Your task to perform on an android device: Go to settings Image 0: 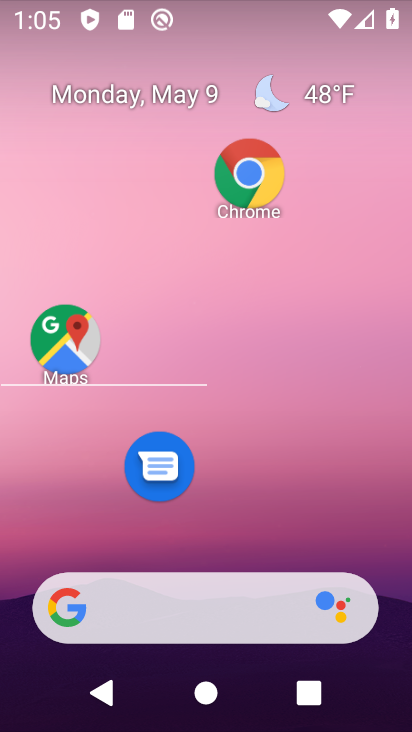
Step 0: click (63, 321)
Your task to perform on an android device: Go to settings Image 1: 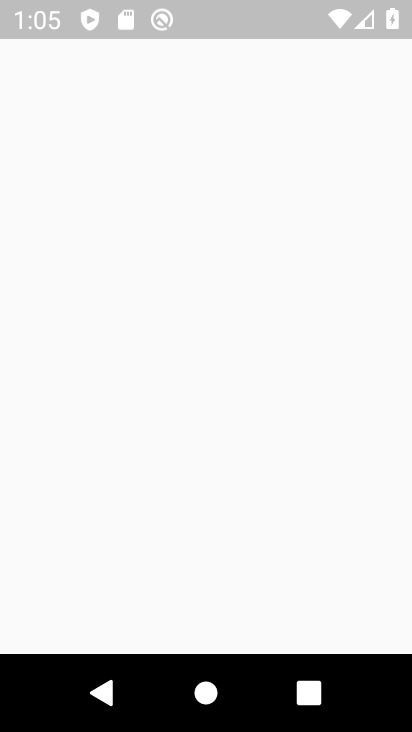
Step 1: press home button
Your task to perform on an android device: Go to settings Image 2: 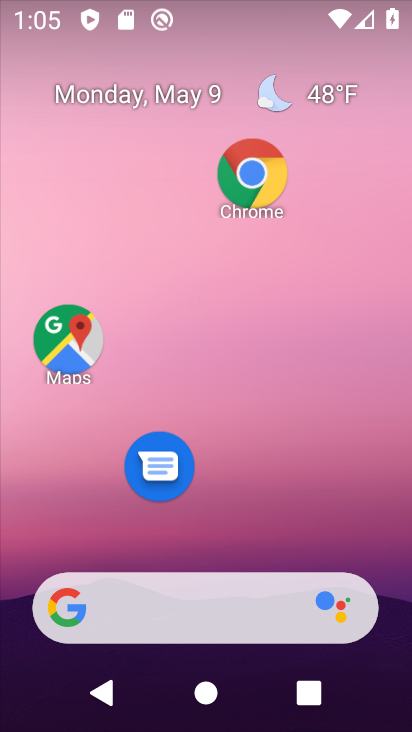
Step 2: drag from (231, 505) to (241, 119)
Your task to perform on an android device: Go to settings Image 3: 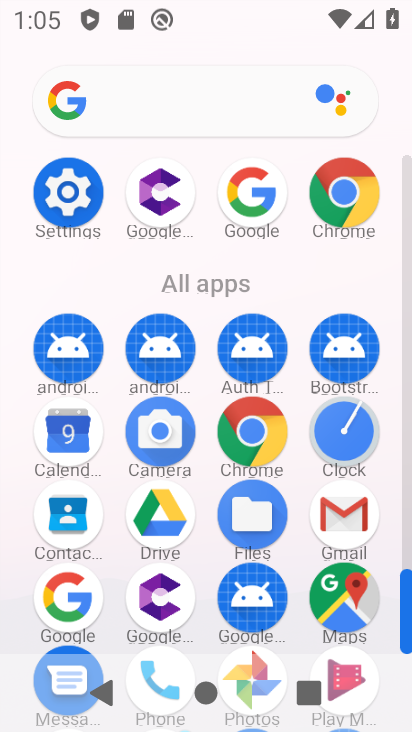
Step 3: click (80, 205)
Your task to perform on an android device: Go to settings Image 4: 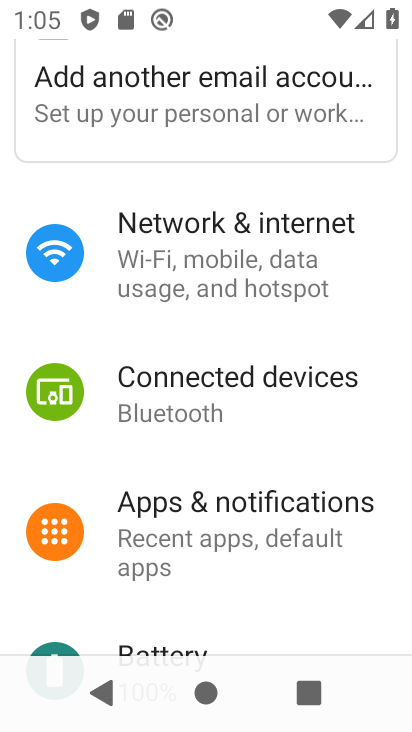
Step 4: task complete